Your task to perform on an android device: Go to Google maps Image 0: 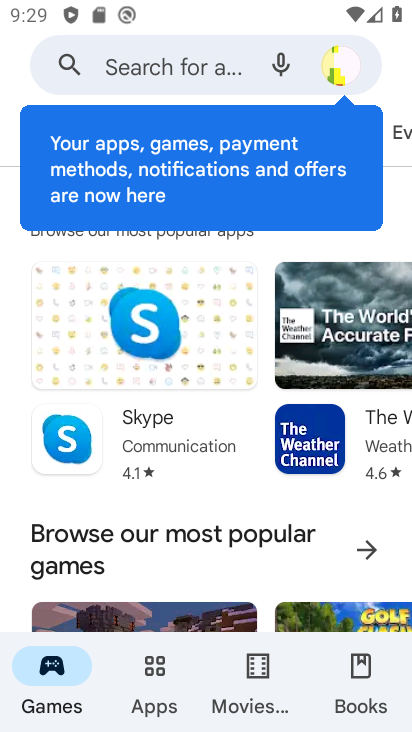
Step 0: press home button
Your task to perform on an android device: Go to Google maps Image 1: 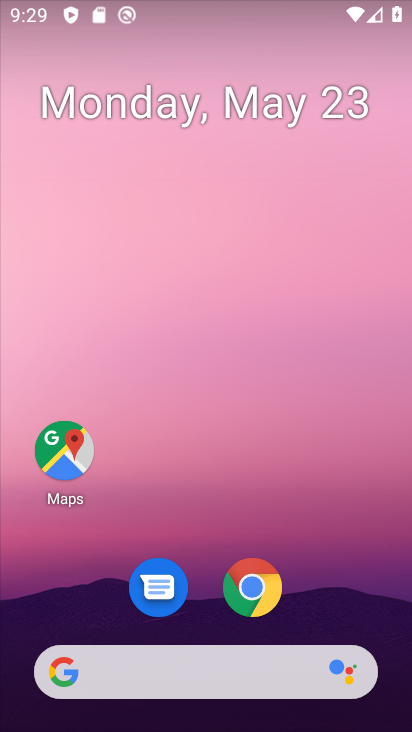
Step 1: drag from (319, 579) to (315, 17)
Your task to perform on an android device: Go to Google maps Image 2: 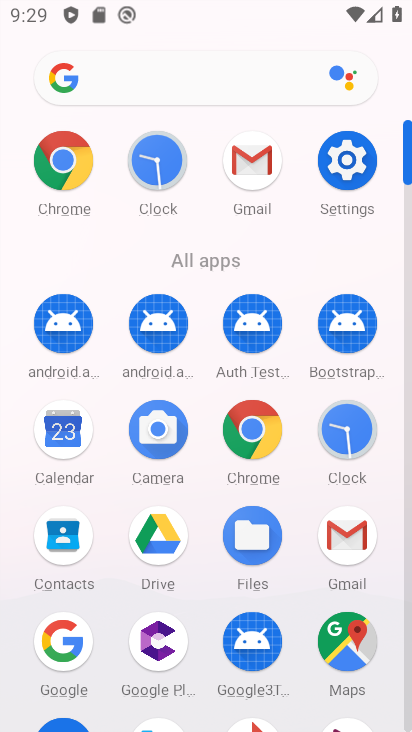
Step 2: click (358, 645)
Your task to perform on an android device: Go to Google maps Image 3: 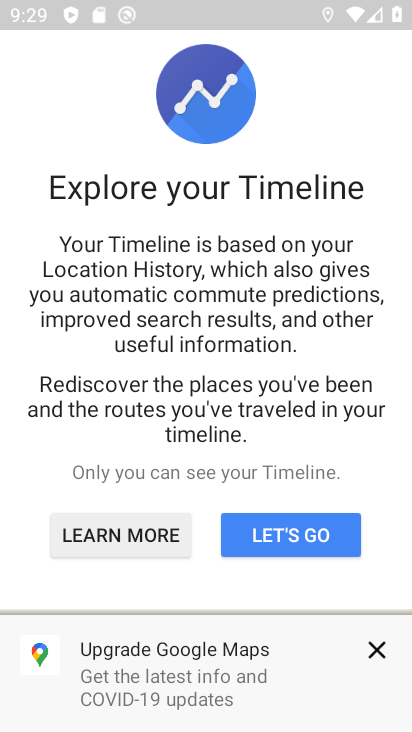
Step 3: task complete